Your task to perform on an android device: turn off location history Image 0: 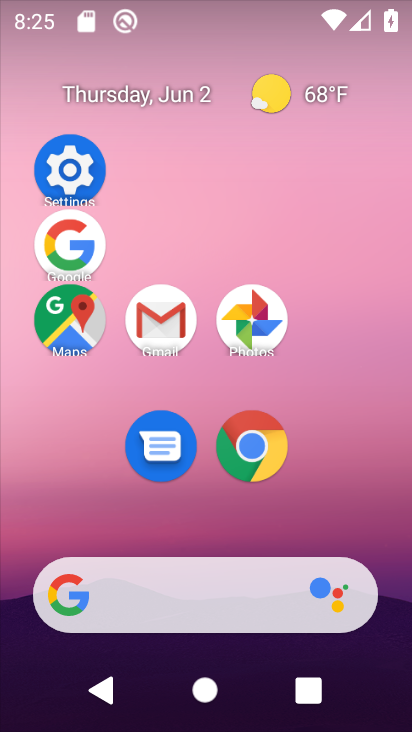
Step 0: click (90, 172)
Your task to perform on an android device: turn off location history Image 1: 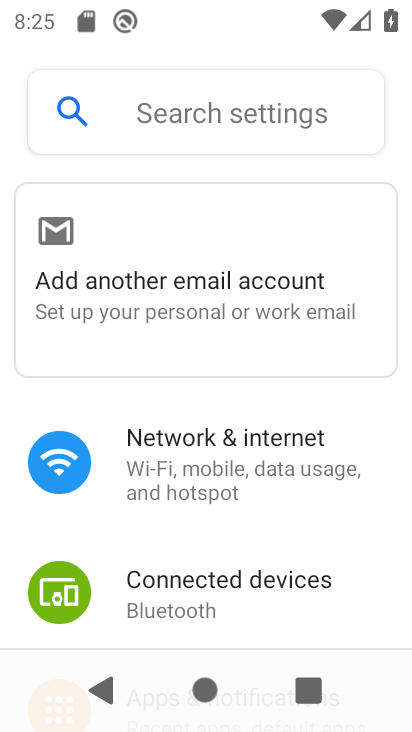
Step 1: drag from (263, 550) to (244, 140)
Your task to perform on an android device: turn off location history Image 2: 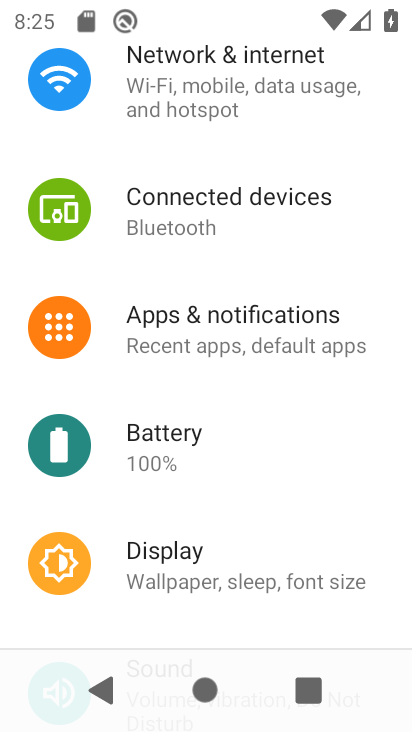
Step 2: drag from (254, 502) to (233, 112)
Your task to perform on an android device: turn off location history Image 3: 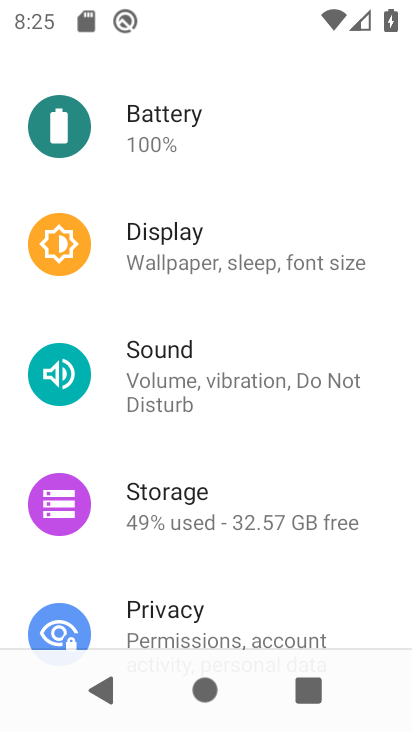
Step 3: drag from (217, 590) to (219, 190)
Your task to perform on an android device: turn off location history Image 4: 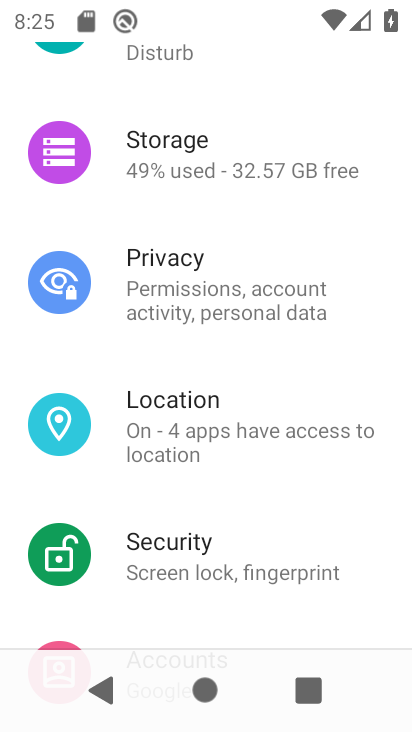
Step 4: click (241, 434)
Your task to perform on an android device: turn off location history Image 5: 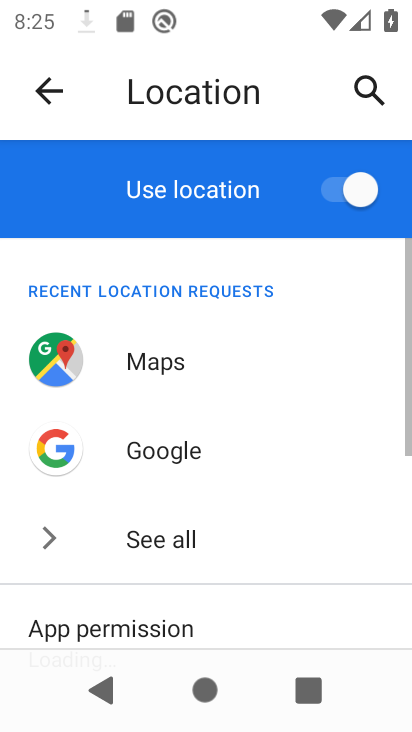
Step 5: drag from (236, 513) to (209, 134)
Your task to perform on an android device: turn off location history Image 6: 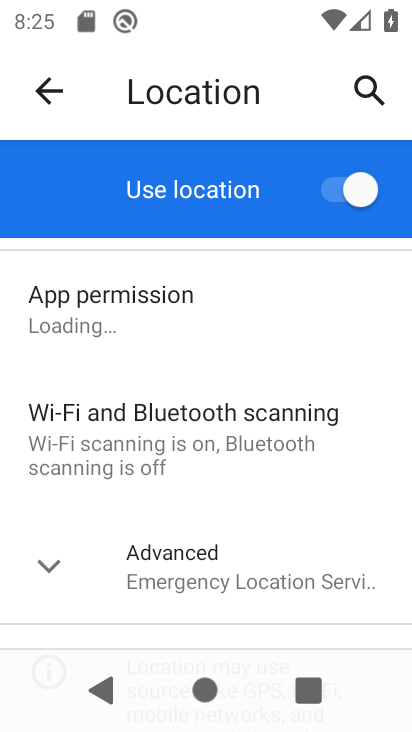
Step 6: click (214, 546)
Your task to perform on an android device: turn off location history Image 7: 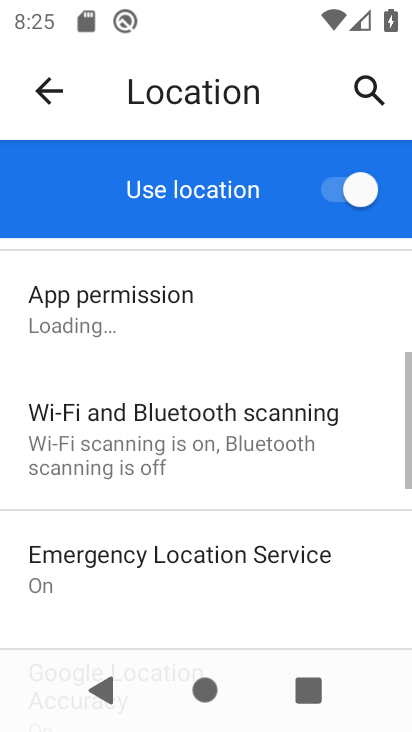
Step 7: drag from (215, 546) to (194, 131)
Your task to perform on an android device: turn off location history Image 8: 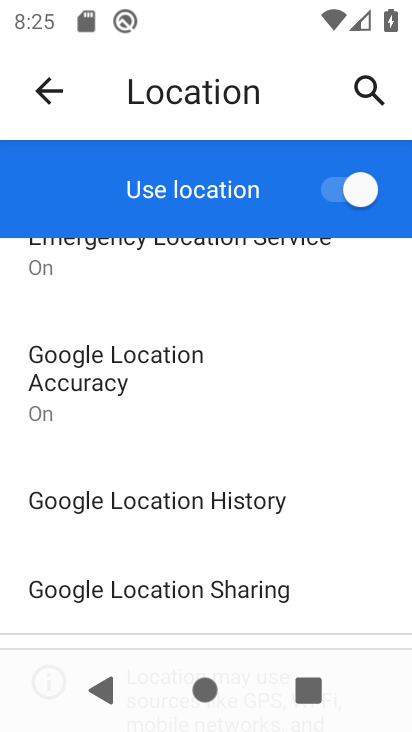
Step 8: click (221, 489)
Your task to perform on an android device: turn off location history Image 9: 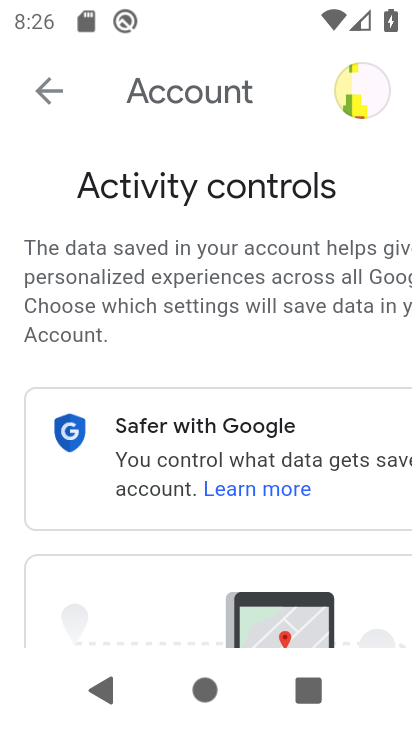
Step 9: drag from (200, 538) to (219, 145)
Your task to perform on an android device: turn off location history Image 10: 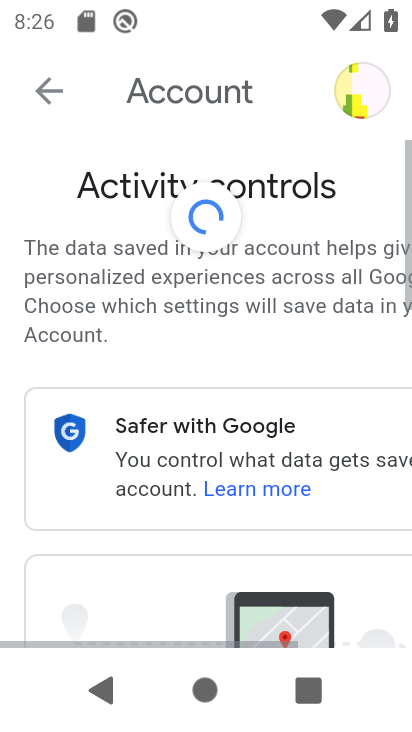
Step 10: drag from (233, 510) to (217, 144)
Your task to perform on an android device: turn off location history Image 11: 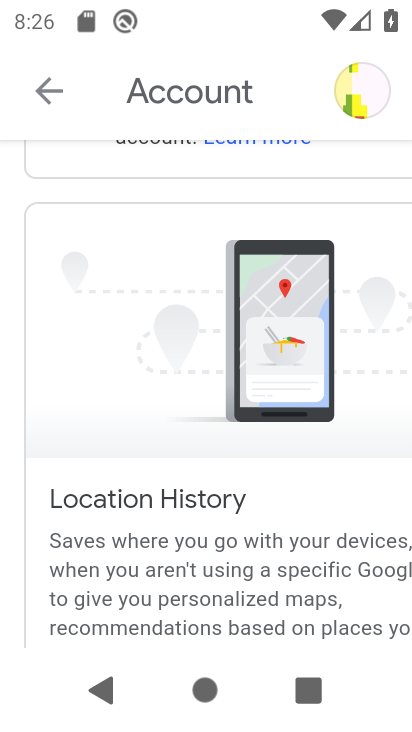
Step 11: drag from (237, 578) to (265, 156)
Your task to perform on an android device: turn off location history Image 12: 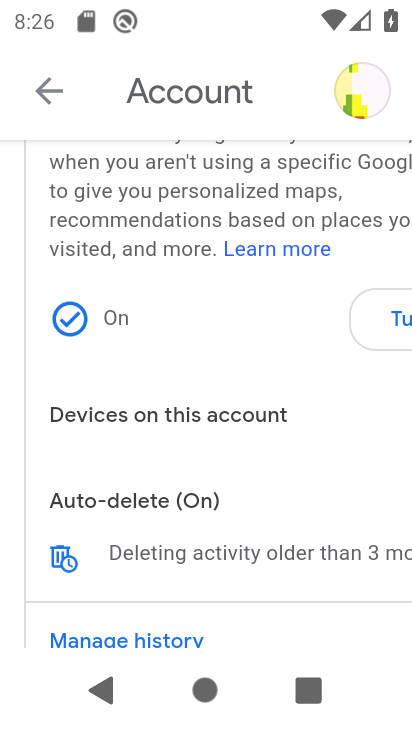
Step 12: click (384, 305)
Your task to perform on an android device: turn off location history Image 13: 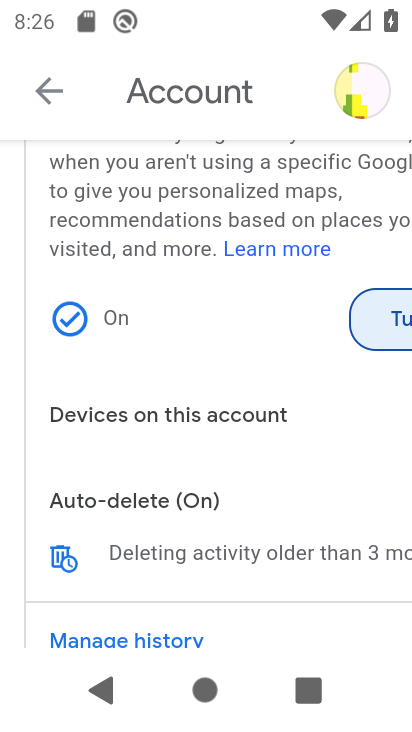
Step 13: click (395, 294)
Your task to perform on an android device: turn off location history Image 14: 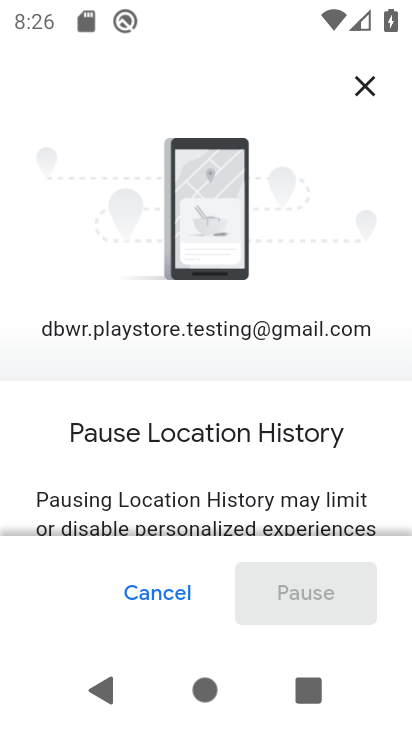
Step 14: drag from (259, 495) to (315, 90)
Your task to perform on an android device: turn off location history Image 15: 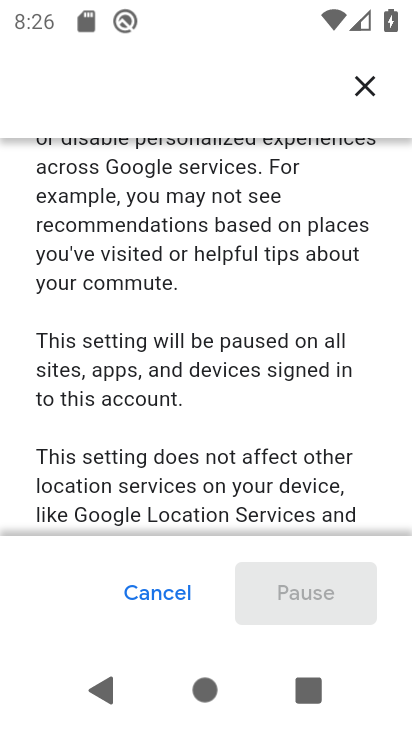
Step 15: drag from (265, 519) to (290, 72)
Your task to perform on an android device: turn off location history Image 16: 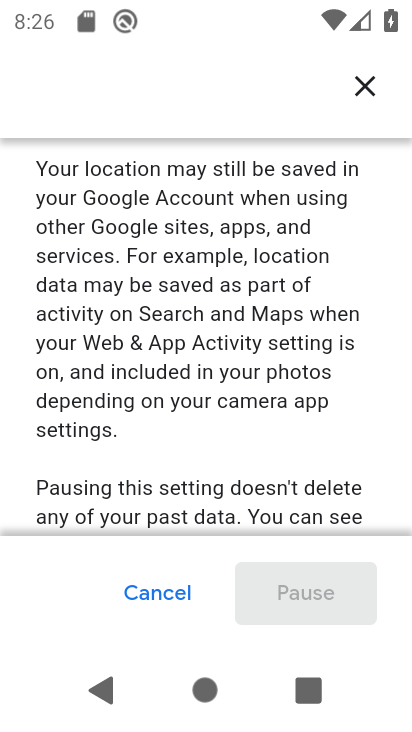
Step 16: drag from (232, 451) to (318, 66)
Your task to perform on an android device: turn off location history Image 17: 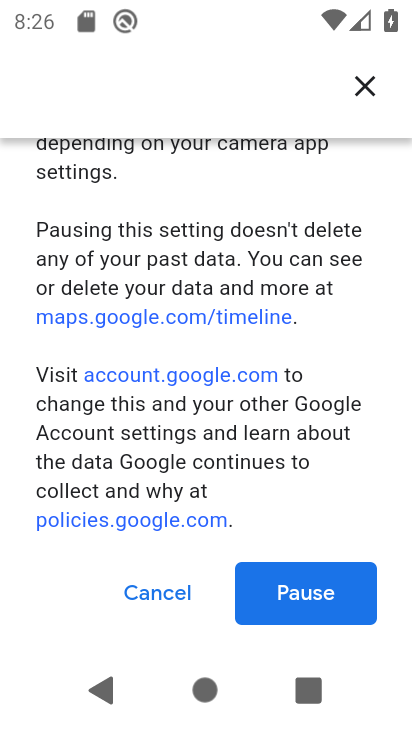
Step 17: click (352, 593)
Your task to perform on an android device: turn off location history Image 18: 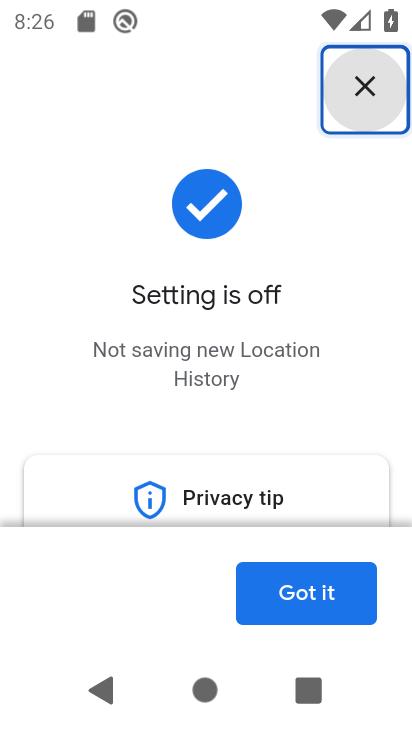
Step 18: click (352, 593)
Your task to perform on an android device: turn off location history Image 19: 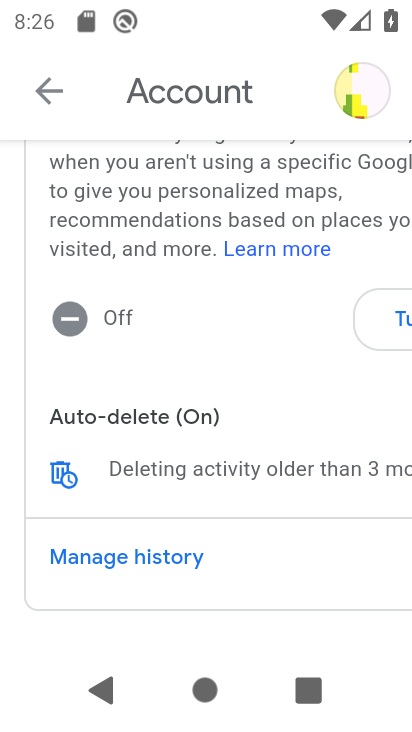
Step 19: task complete